Your task to perform on an android device: When is my next appointment? Image 0: 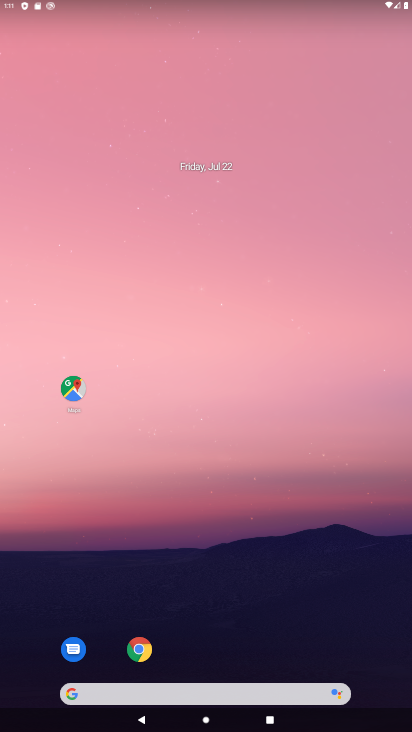
Step 0: drag from (268, 594) to (254, 70)
Your task to perform on an android device: When is my next appointment? Image 1: 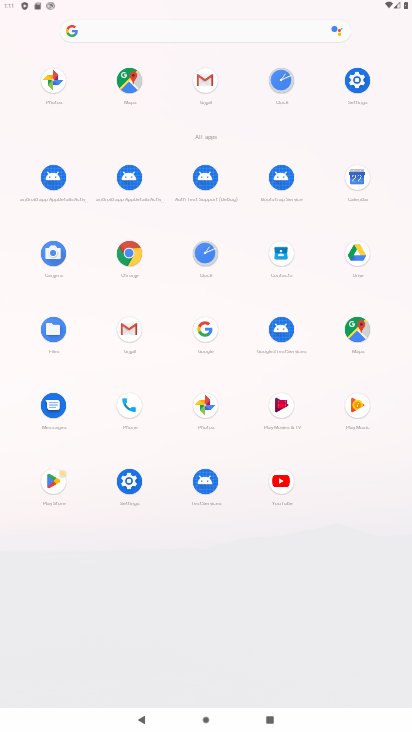
Step 1: click (358, 186)
Your task to perform on an android device: When is my next appointment? Image 2: 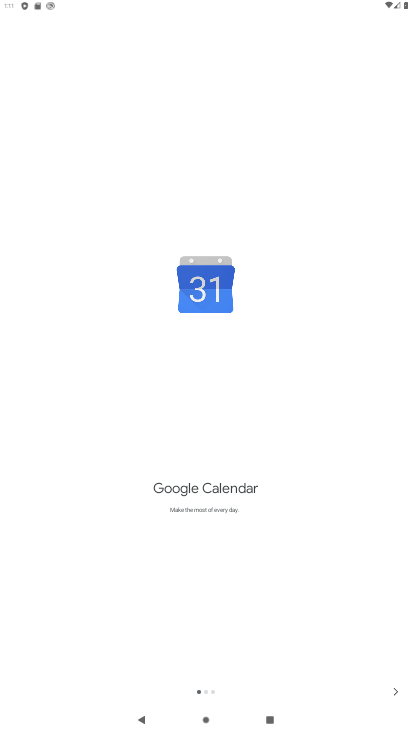
Step 2: click (394, 695)
Your task to perform on an android device: When is my next appointment? Image 3: 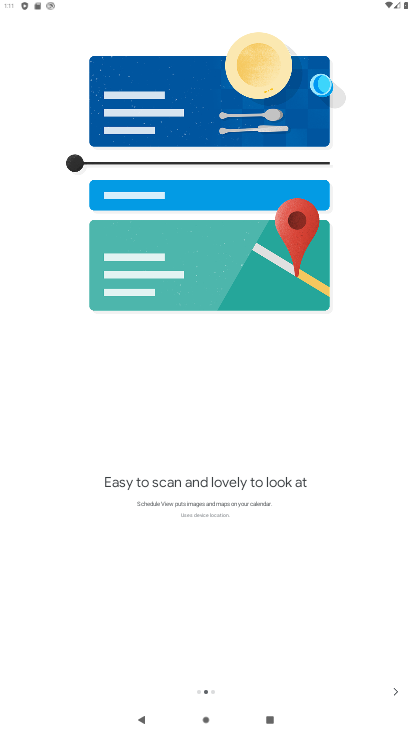
Step 3: click (398, 689)
Your task to perform on an android device: When is my next appointment? Image 4: 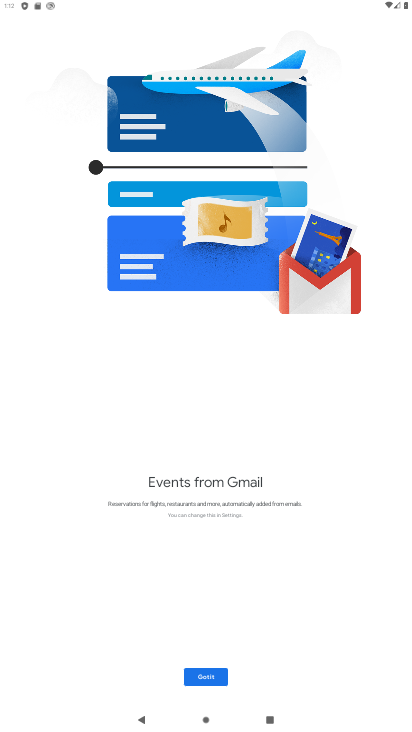
Step 4: click (213, 677)
Your task to perform on an android device: When is my next appointment? Image 5: 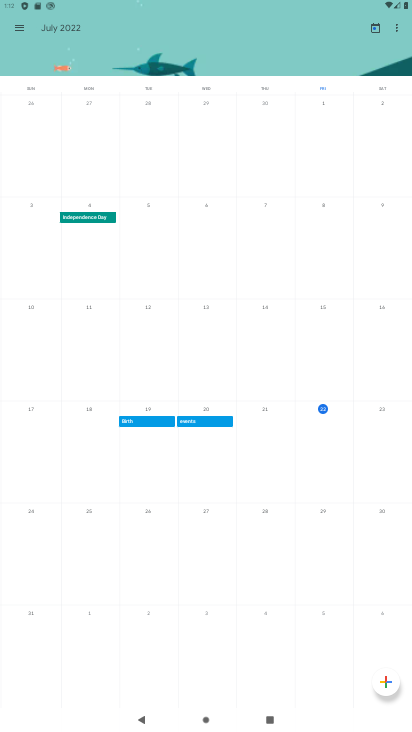
Step 5: click (333, 420)
Your task to perform on an android device: When is my next appointment? Image 6: 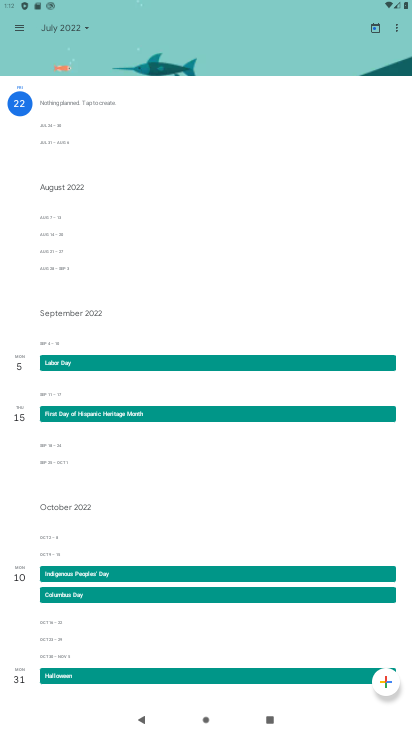
Step 6: task complete